Your task to perform on an android device: open sync settings in chrome Image 0: 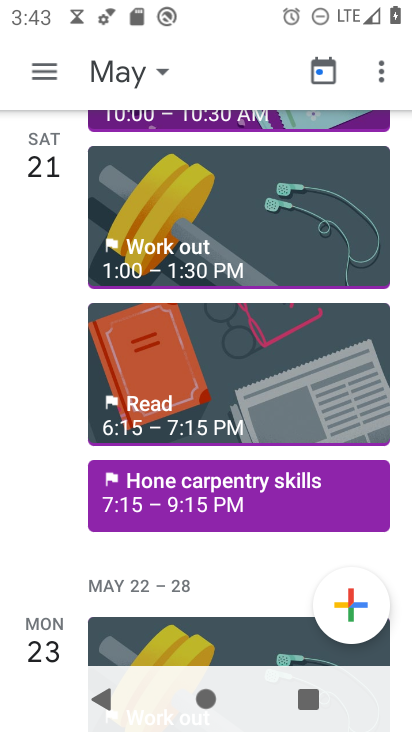
Step 0: press home button
Your task to perform on an android device: open sync settings in chrome Image 1: 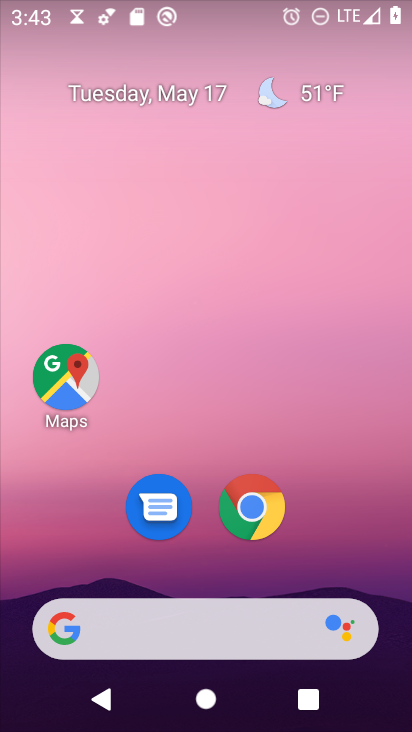
Step 1: click (259, 509)
Your task to perform on an android device: open sync settings in chrome Image 2: 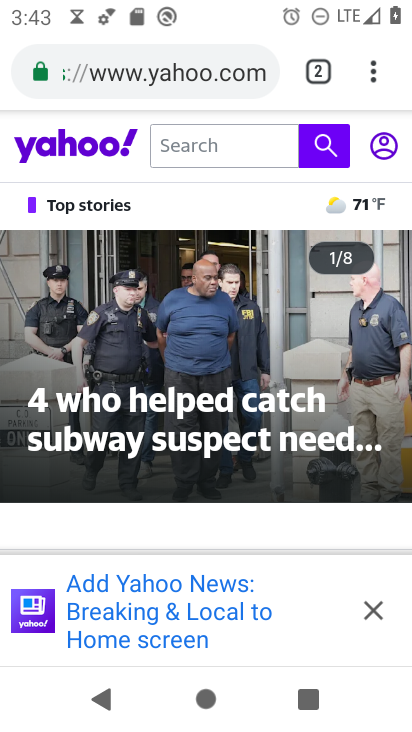
Step 2: click (374, 82)
Your task to perform on an android device: open sync settings in chrome Image 3: 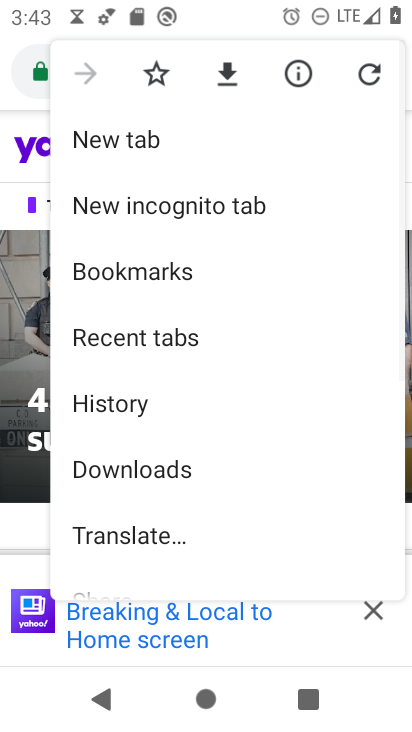
Step 3: drag from (239, 513) to (197, 229)
Your task to perform on an android device: open sync settings in chrome Image 4: 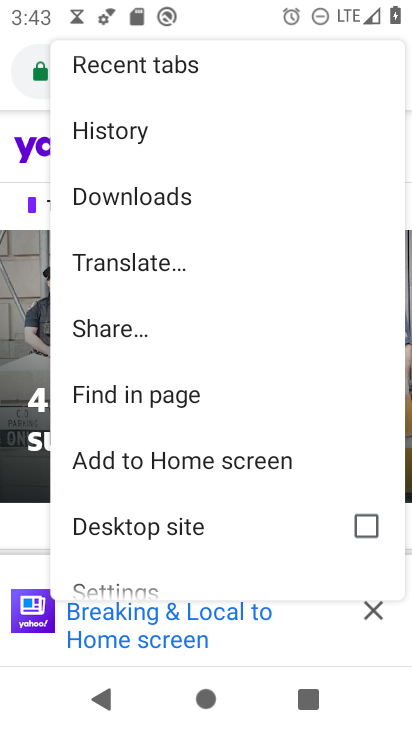
Step 4: drag from (135, 566) to (110, 320)
Your task to perform on an android device: open sync settings in chrome Image 5: 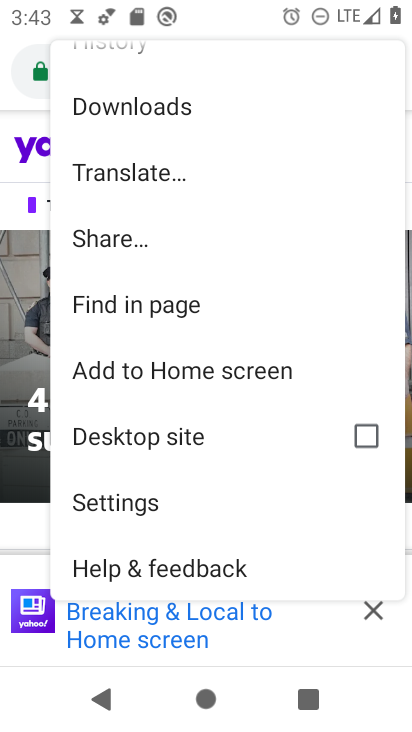
Step 5: click (120, 497)
Your task to perform on an android device: open sync settings in chrome Image 6: 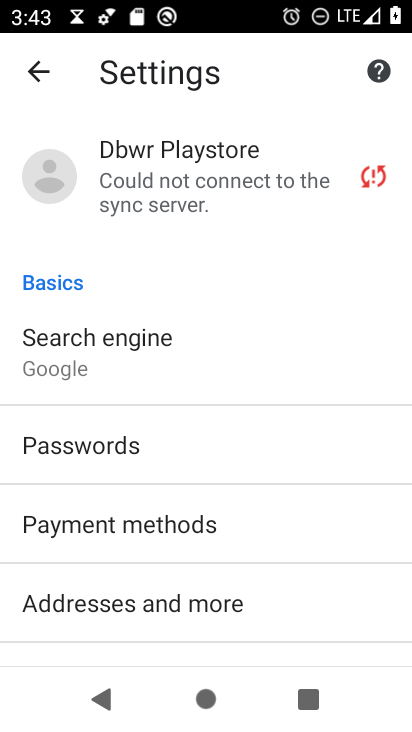
Step 6: click (202, 185)
Your task to perform on an android device: open sync settings in chrome Image 7: 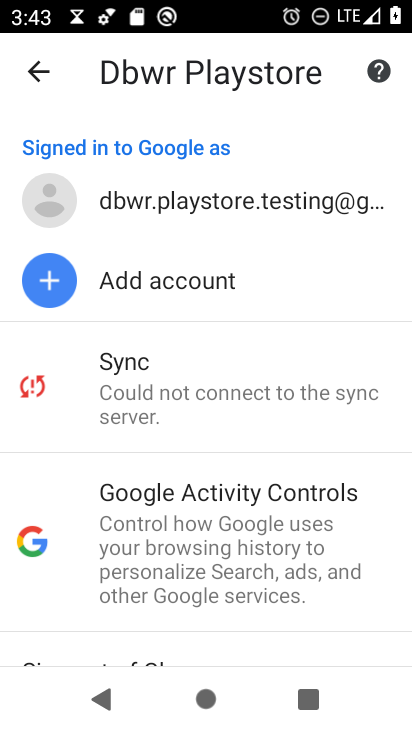
Step 7: click (137, 384)
Your task to perform on an android device: open sync settings in chrome Image 8: 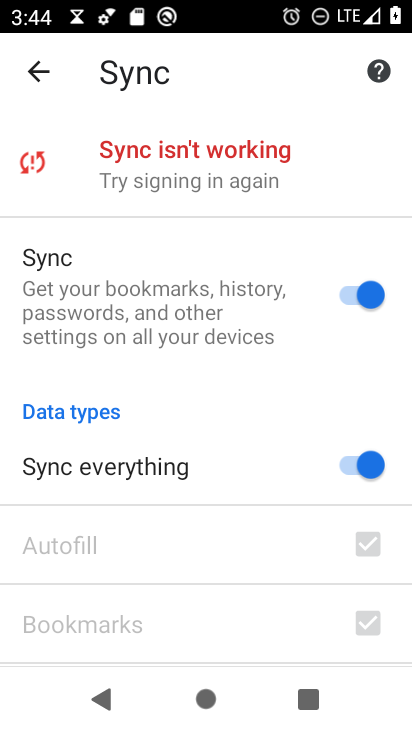
Step 8: task complete